Your task to perform on an android device: What's the news? Image 0: 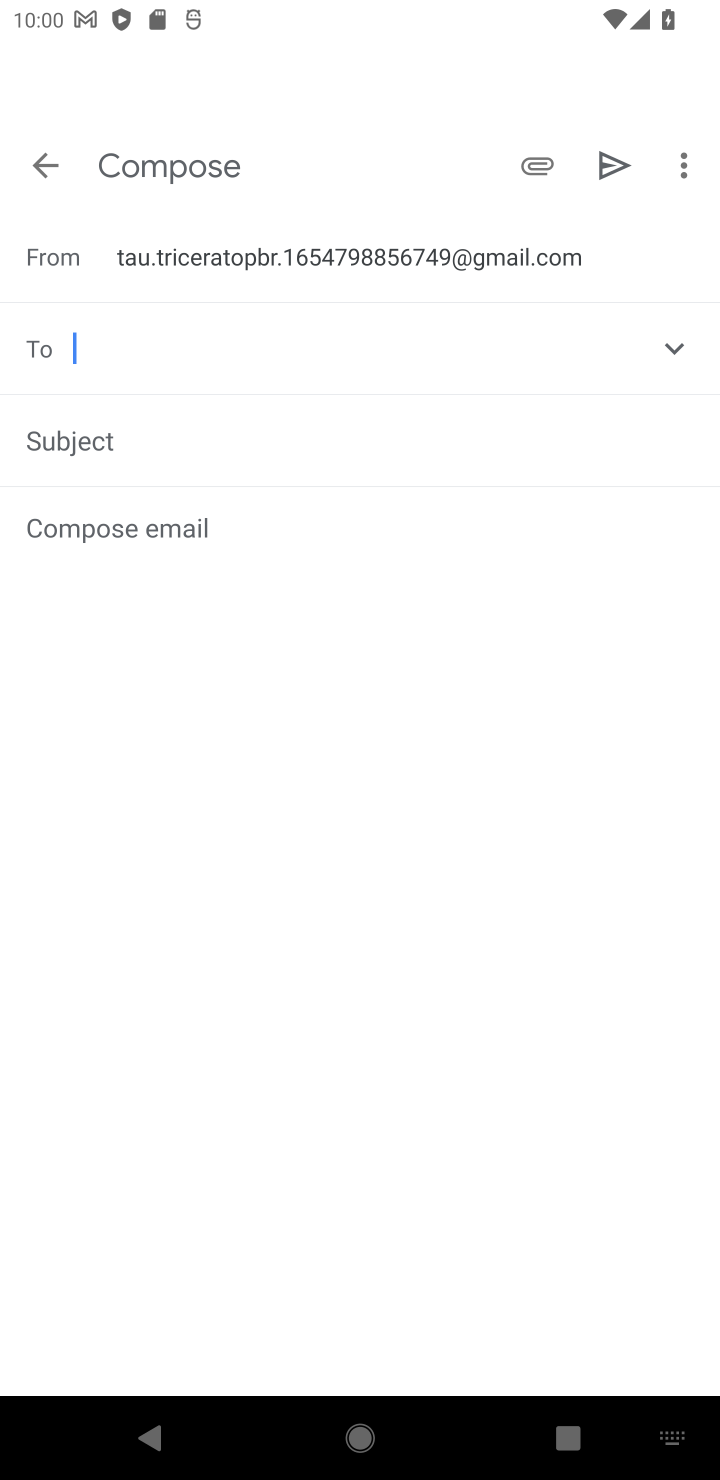
Step 0: press home button
Your task to perform on an android device: What's the news? Image 1: 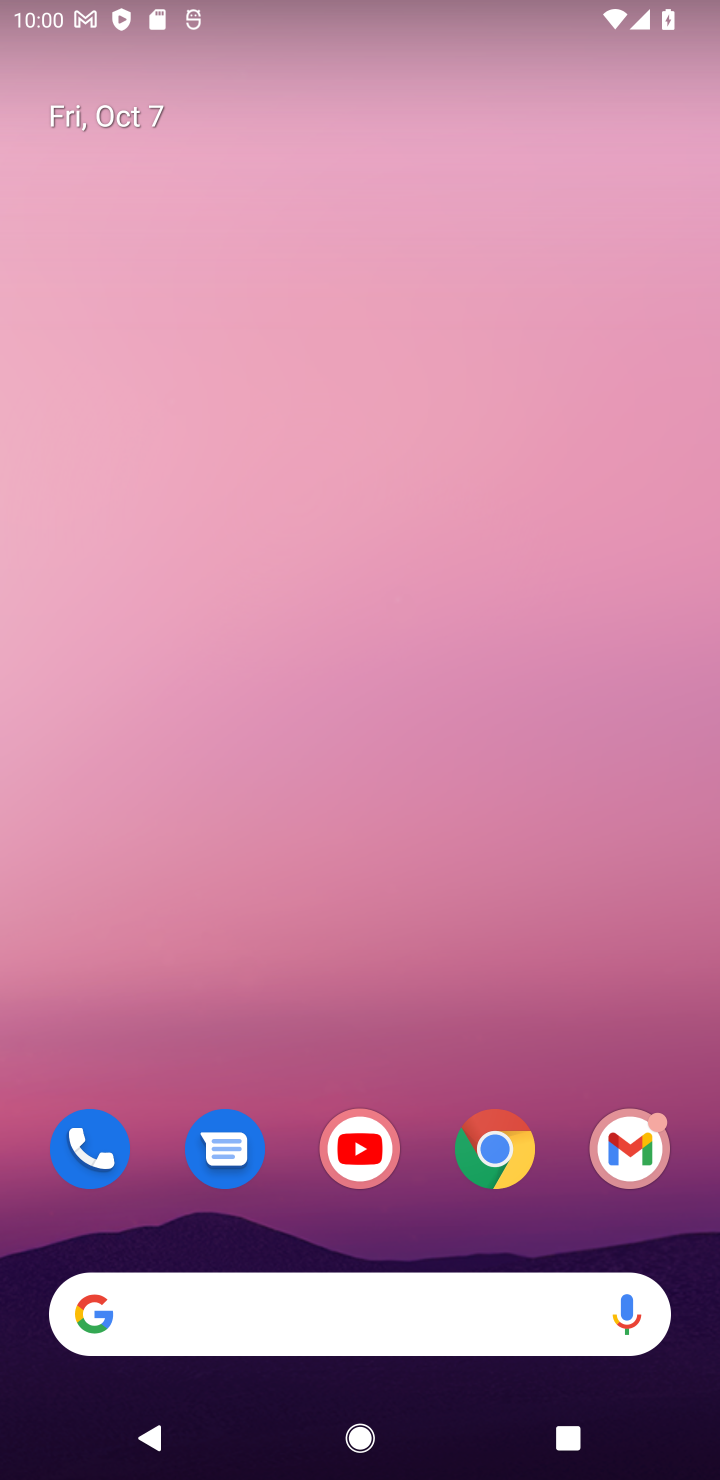
Step 1: click (291, 1301)
Your task to perform on an android device: What's the news? Image 2: 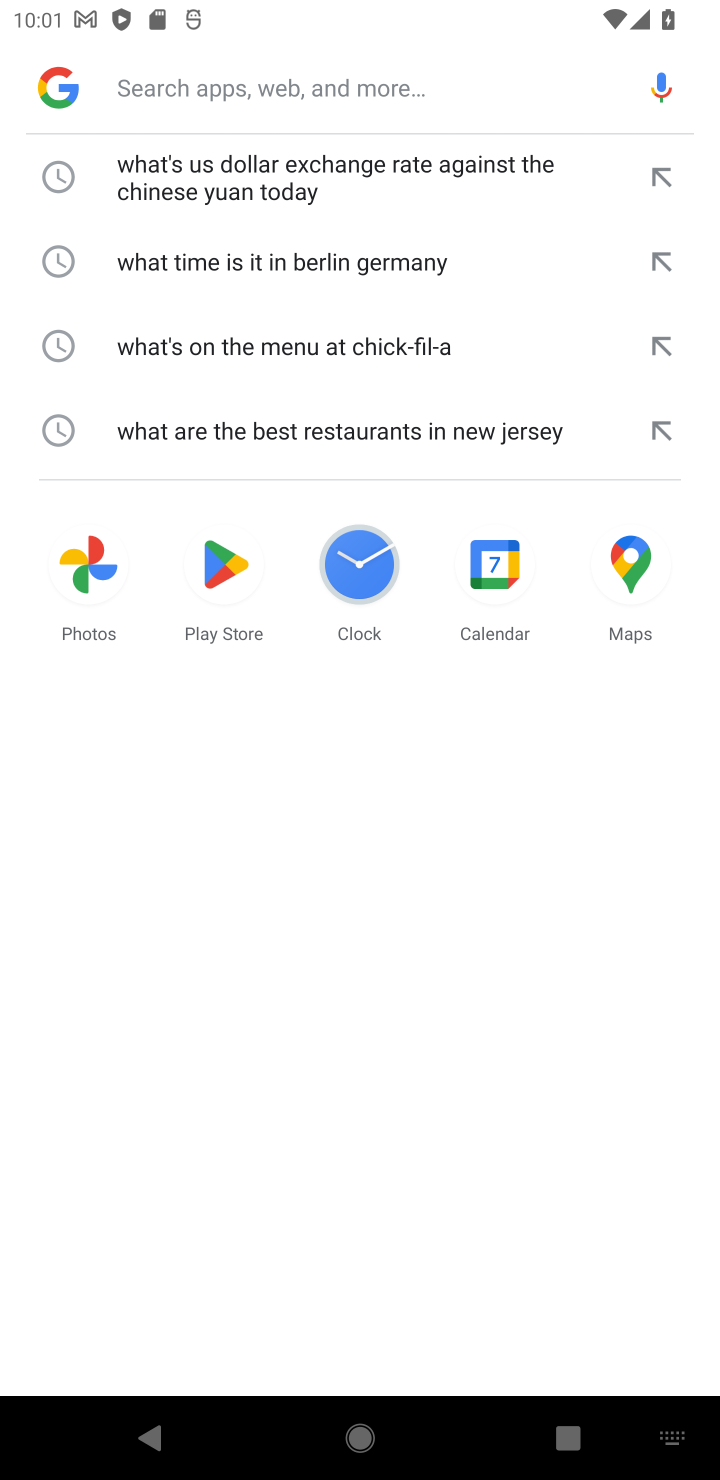
Step 2: type "What's the news?"
Your task to perform on an android device: What's the news? Image 3: 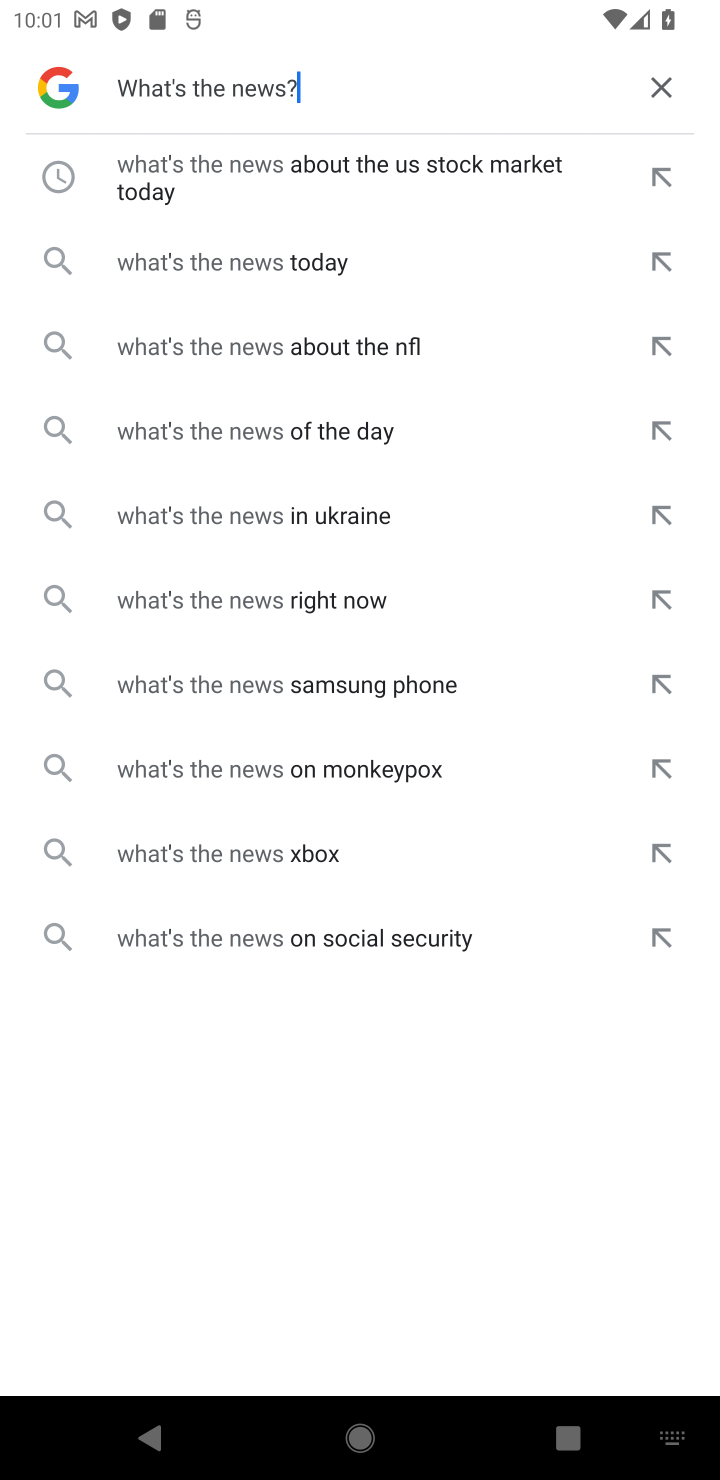
Step 3: click (253, 161)
Your task to perform on an android device: What's the news? Image 4: 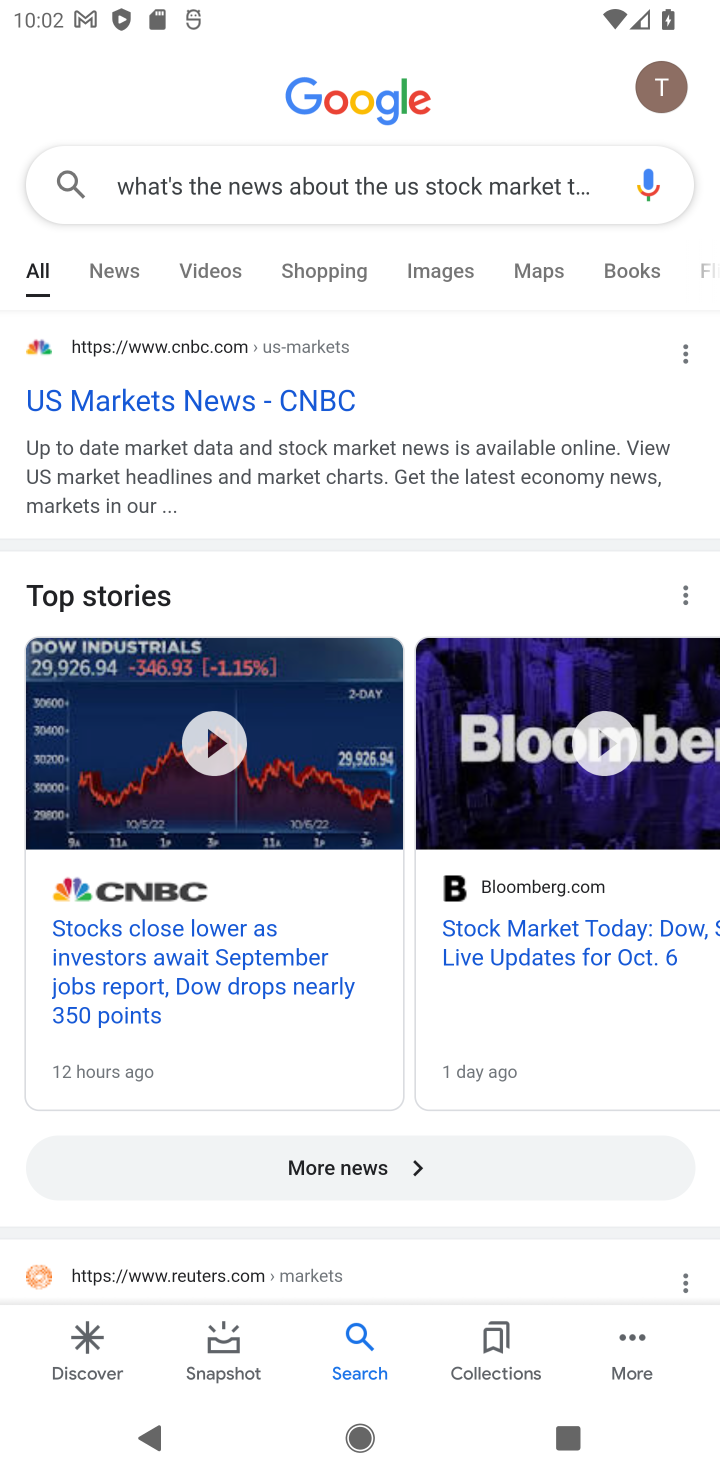
Step 4: task complete